Your task to perform on an android device: turn on data saver in the chrome app Image 0: 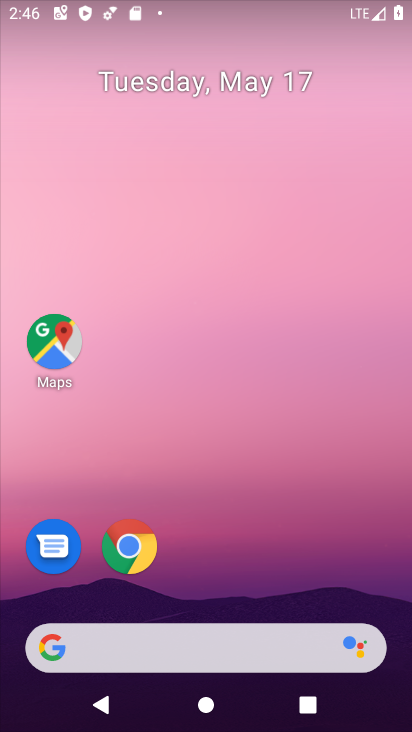
Step 0: press home button
Your task to perform on an android device: turn on data saver in the chrome app Image 1: 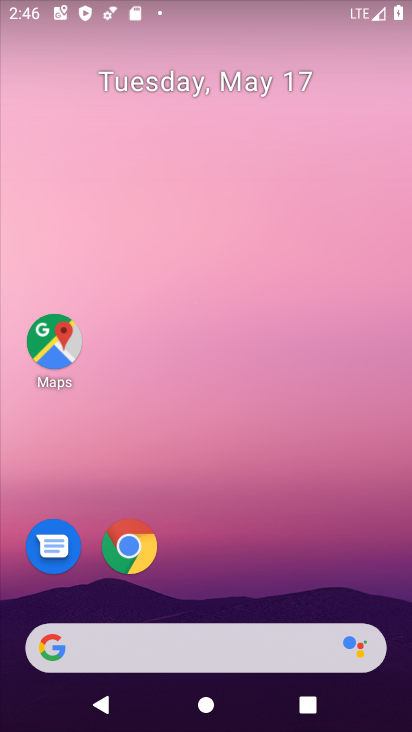
Step 1: click (140, 560)
Your task to perform on an android device: turn on data saver in the chrome app Image 2: 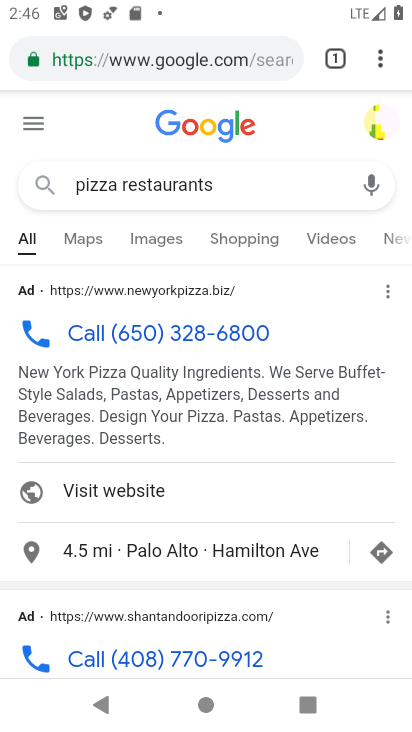
Step 2: drag from (372, 46) to (230, 590)
Your task to perform on an android device: turn on data saver in the chrome app Image 3: 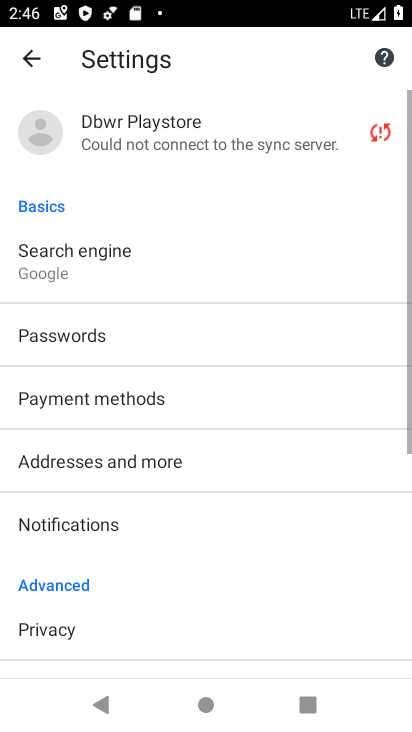
Step 3: drag from (230, 590) to (226, 70)
Your task to perform on an android device: turn on data saver in the chrome app Image 4: 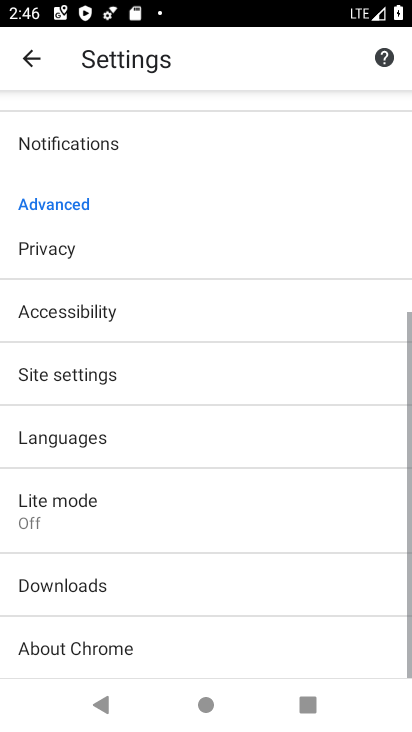
Step 4: click (230, 510)
Your task to perform on an android device: turn on data saver in the chrome app Image 5: 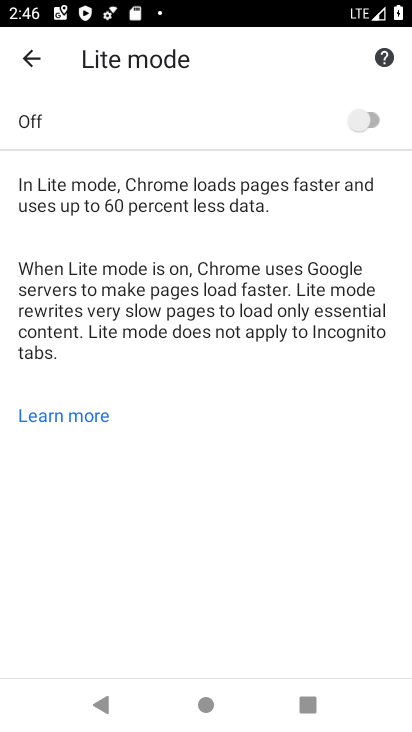
Step 5: click (346, 150)
Your task to perform on an android device: turn on data saver in the chrome app Image 6: 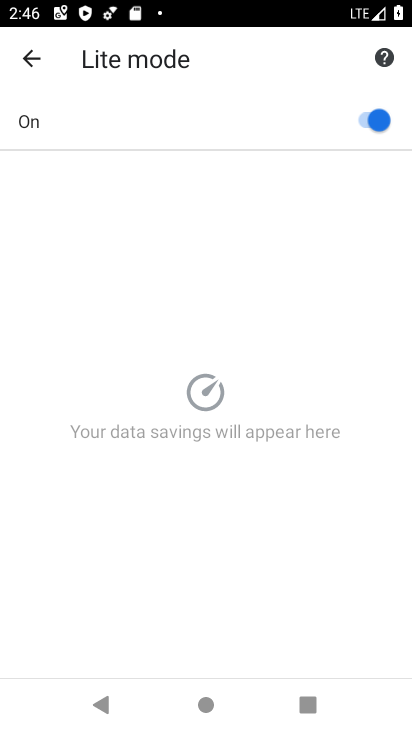
Step 6: task complete